Your task to perform on an android device: allow cookies in the chrome app Image 0: 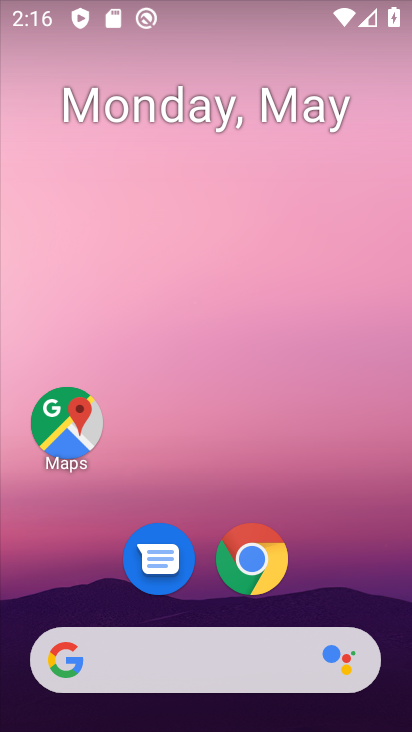
Step 0: click (278, 569)
Your task to perform on an android device: allow cookies in the chrome app Image 1: 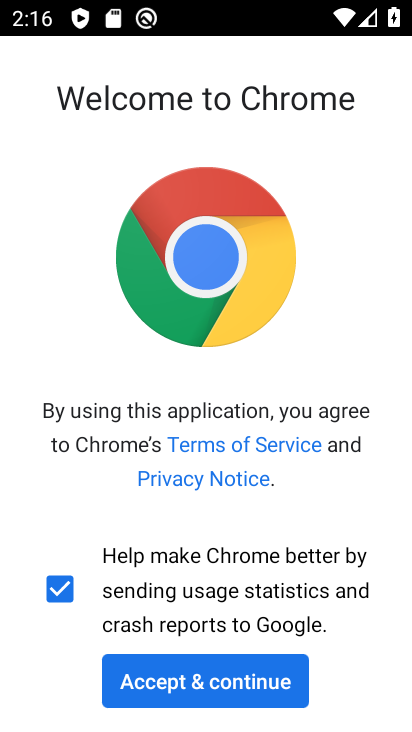
Step 1: click (244, 677)
Your task to perform on an android device: allow cookies in the chrome app Image 2: 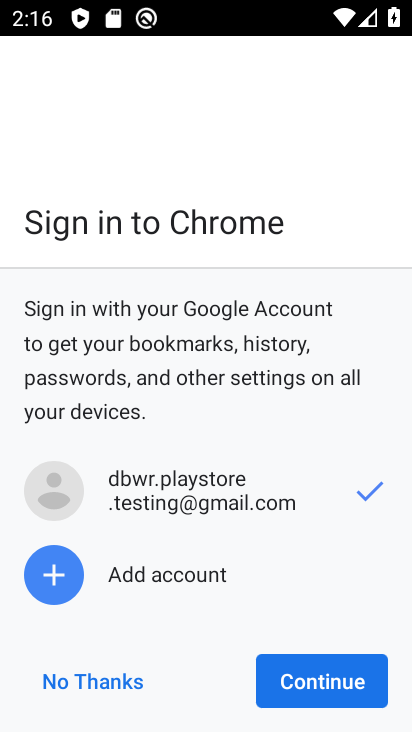
Step 2: click (344, 680)
Your task to perform on an android device: allow cookies in the chrome app Image 3: 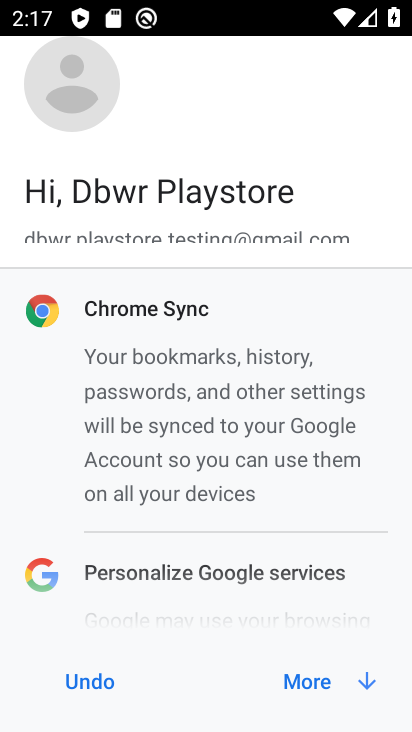
Step 3: click (331, 688)
Your task to perform on an android device: allow cookies in the chrome app Image 4: 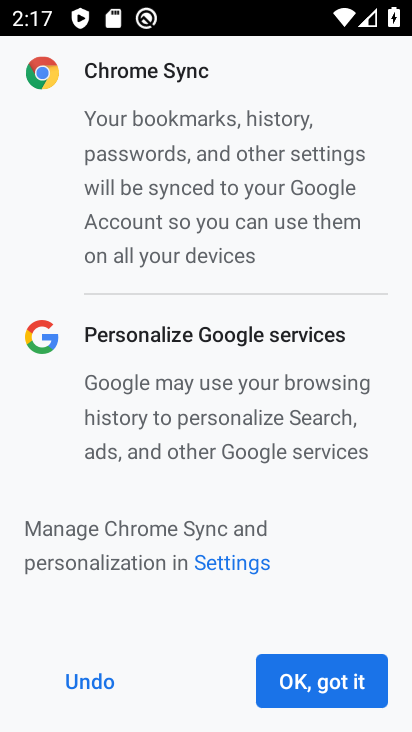
Step 4: click (336, 688)
Your task to perform on an android device: allow cookies in the chrome app Image 5: 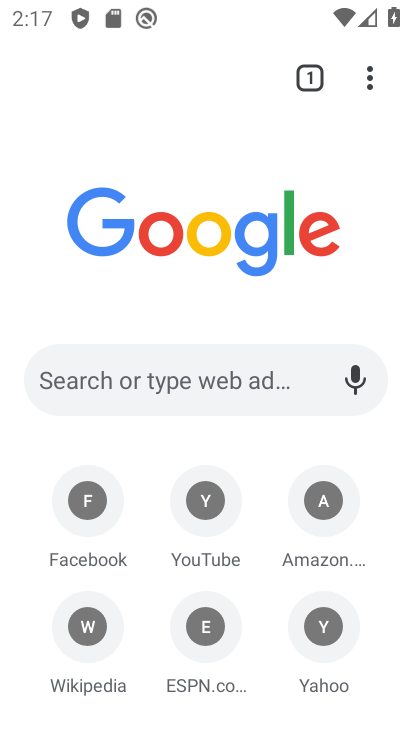
Step 5: click (376, 94)
Your task to perform on an android device: allow cookies in the chrome app Image 6: 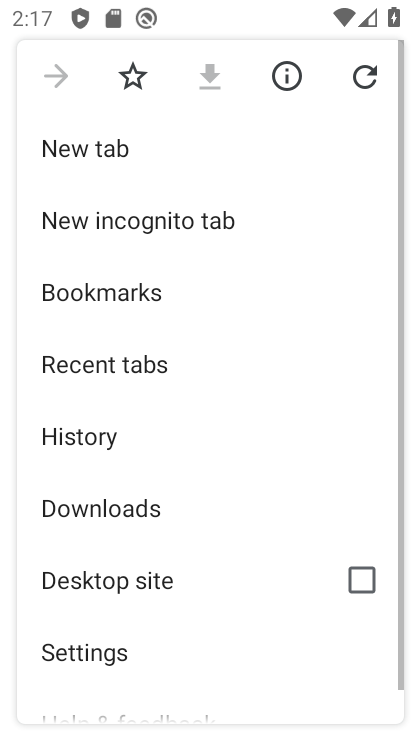
Step 6: drag from (189, 537) to (233, 267)
Your task to perform on an android device: allow cookies in the chrome app Image 7: 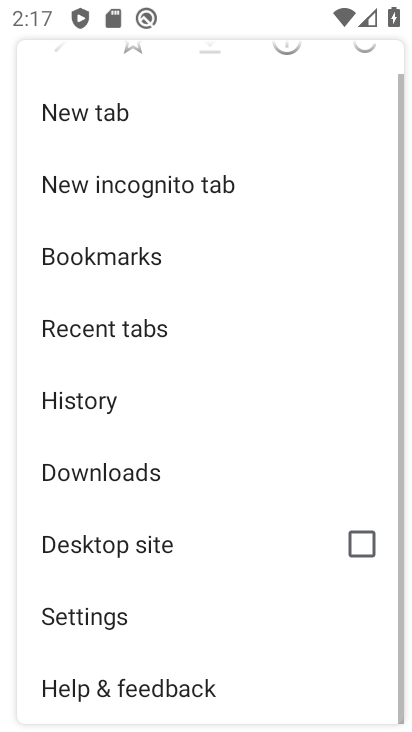
Step 7: click (111, 603)
Your task to perform on an android device: allow cookies in the chrome app Image 8: 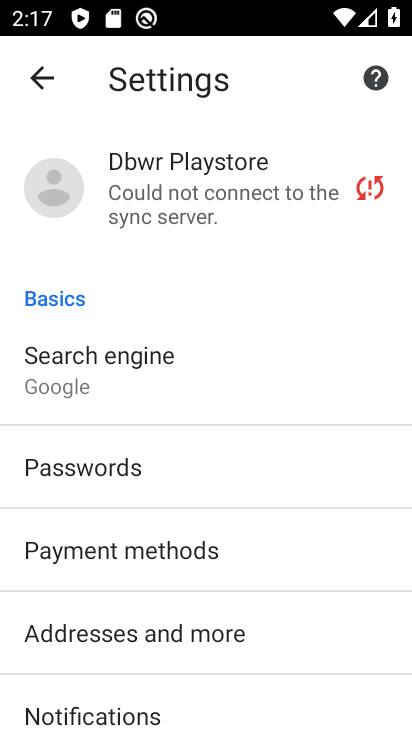
Step 8: drag from (170, 569) to (185, 204)
Your task to perform on an android device: allow cookies in the chrome app Image 9: 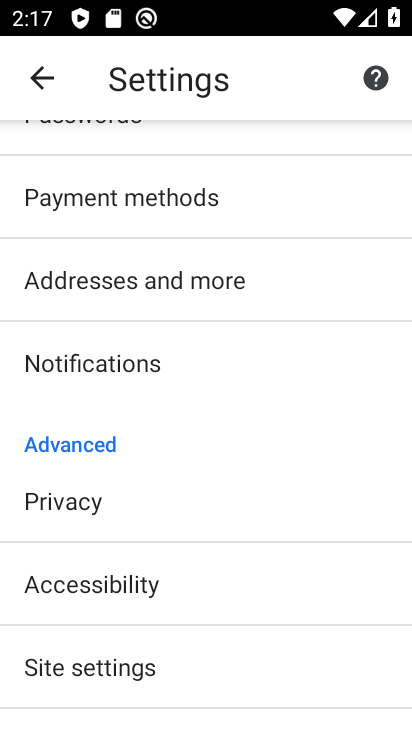
Step 9: click (104, 665)
Your task to perform on an android device: allow cookies in the chrome app Image 10: 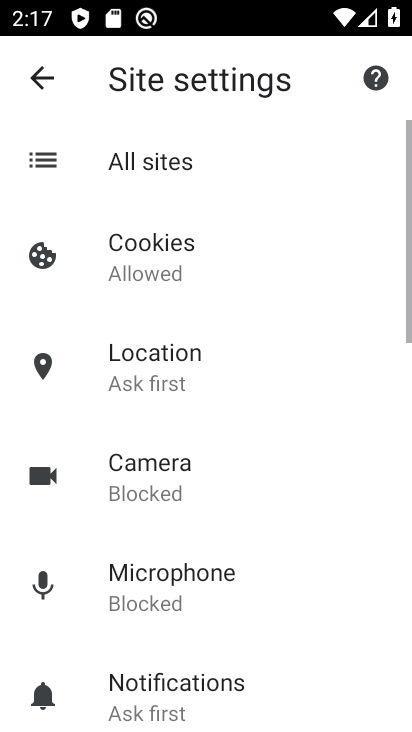
Step 10: click (253, 247)
Your task to perform on an android device: allow cookies in the chrome app Image 11: 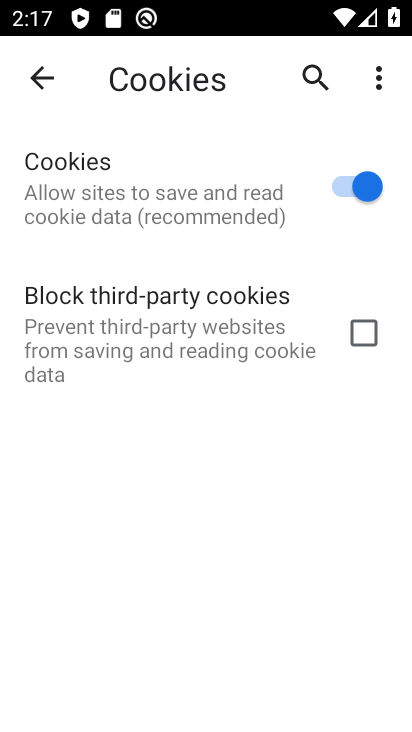
Step 11: task complete